Your task to perform on an android device: turn on notifications settings in the gmail app Image 0: 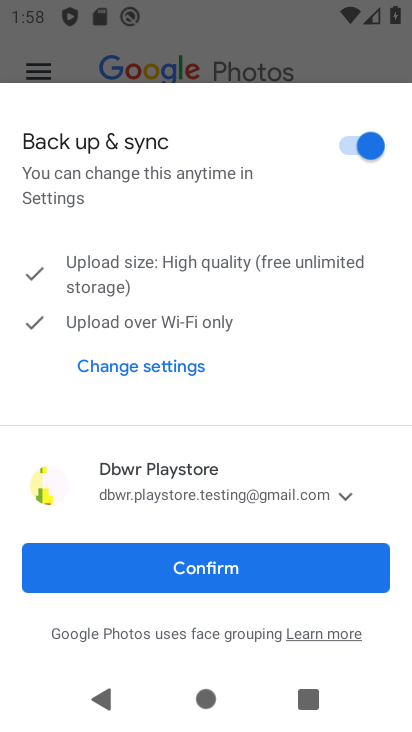
Step 0: press back button
Your task to perform on an android device: turn on notifications settings in the gmail app Image 1: 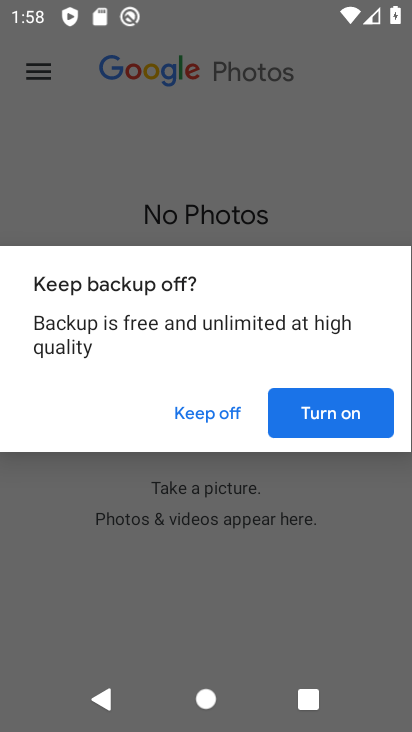
Step 1: press back button
Your task to perform on an android device: turn on notifications settings in the gmail app Image 2: 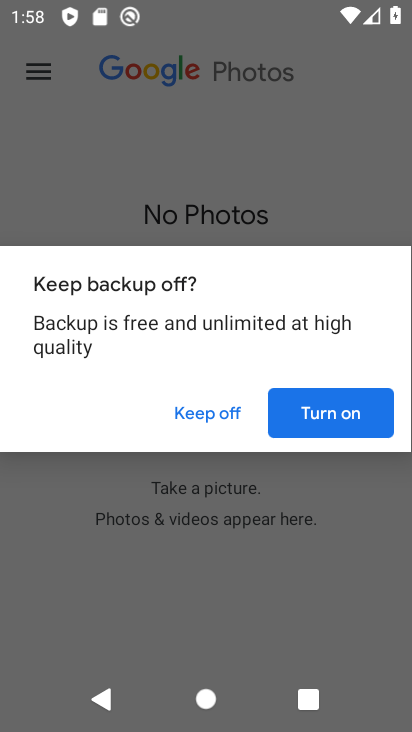
Step 2: click (226, 415)
Your task to perform on an android device: turn on notifications settings in the gmail app Image 3: 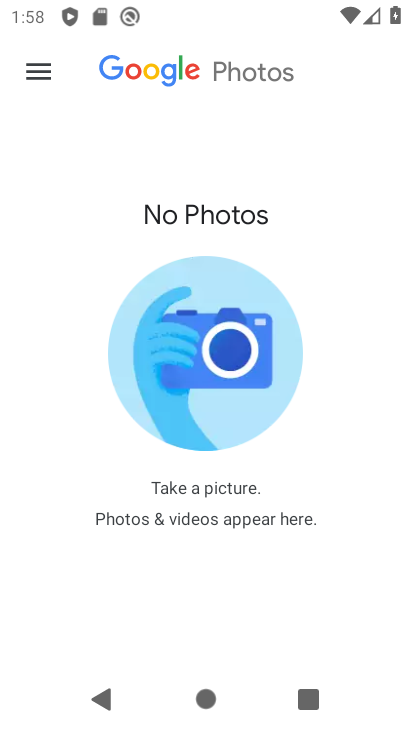
Step 3: press back button
Your task to perform on an android device: turn on notifications settings in the gmail app Image 4: 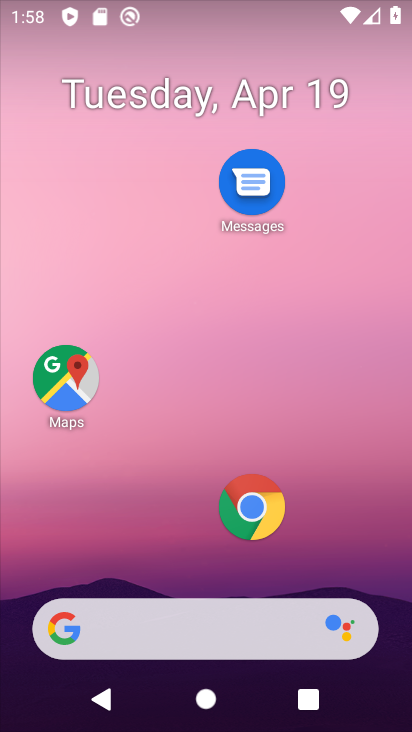
Step 4: drag from (109, 412) to (224, 57)
Your task to perform on an android device: turn on notifications settings in the gmail app Image 5: 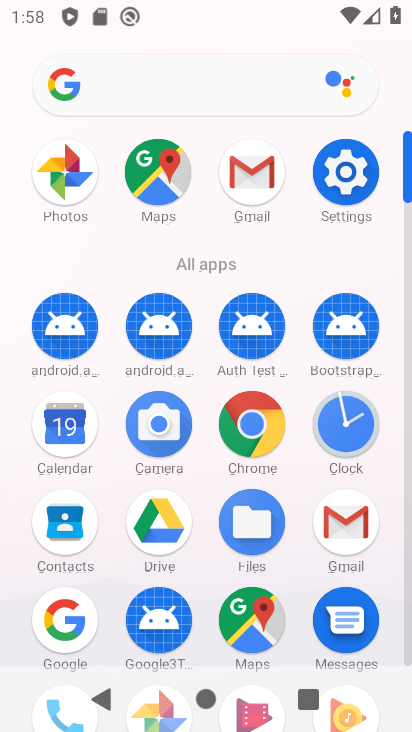
Step 5: click (350, 530)
Your task to perform on an android device: turn on notifications settings in the gmail app Image 6: 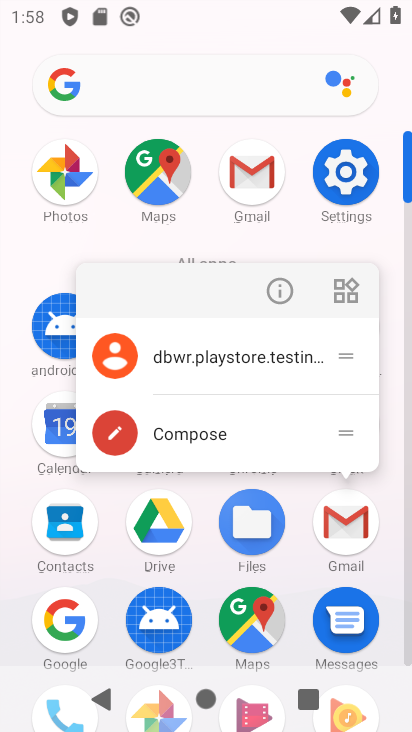
Step 6: click (352, 528)
Your task to perform on an android device: turn on notifications settings in the gmail app Image 7: 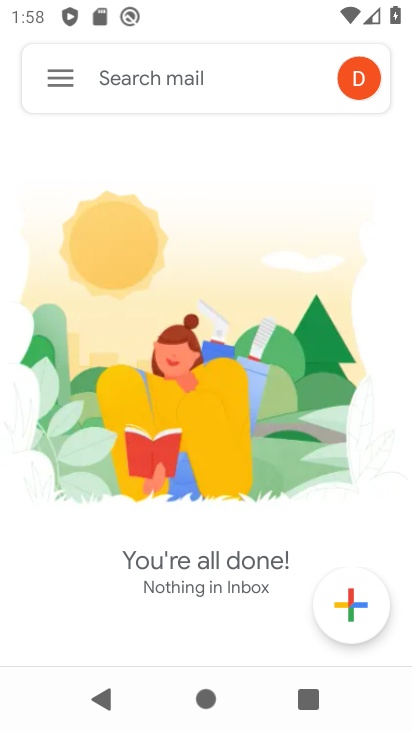
Step 7: click (58, 79)
Your task to perform on an android device: turn on notifications settings in the gmail app Image 8: 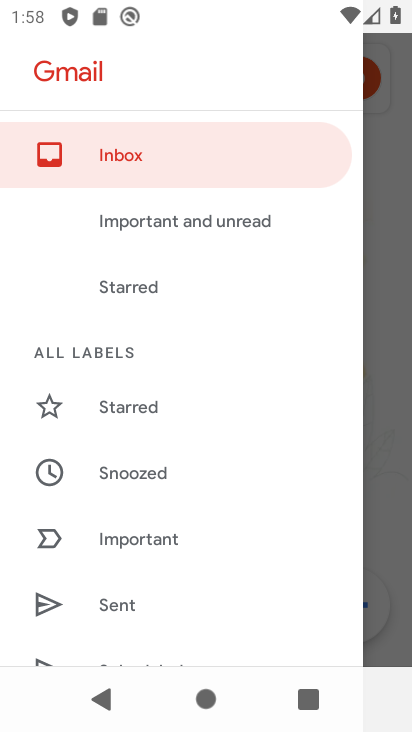
Step 8: drag from (164, 545) to (290, 158)
Your task to perform on an android device: turn on notifications settings in the gmail app Image 9: 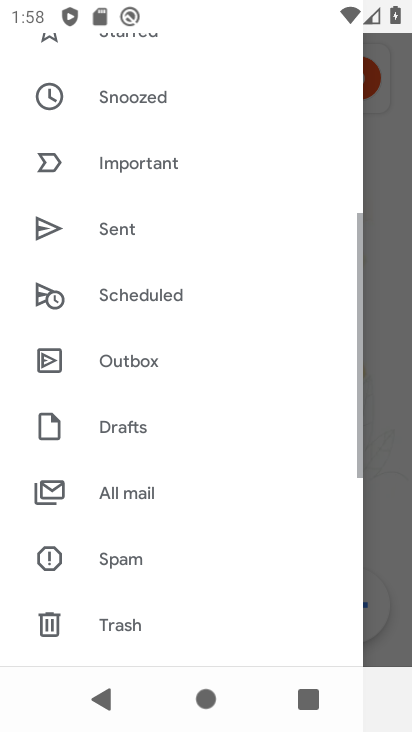
Step 9: drag from (207, 592) to (279, 189)
Your task to perform on an android device: turn on notifications settings in the gmail app Image 10: 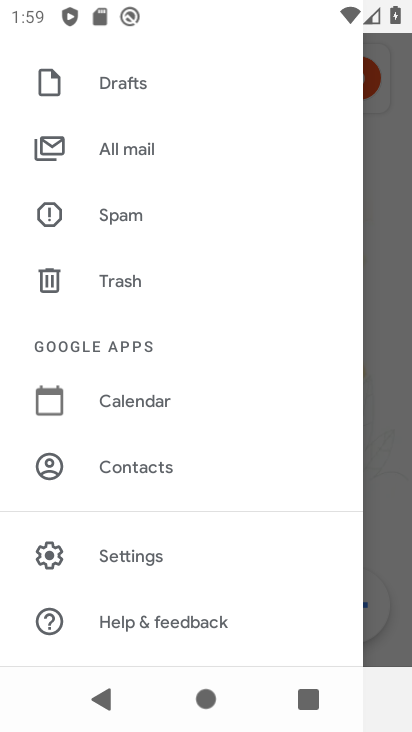
Step 10: click (161, 560)
Your task to perform on an android device: turn on notifications settings in the gmail app Image 11: 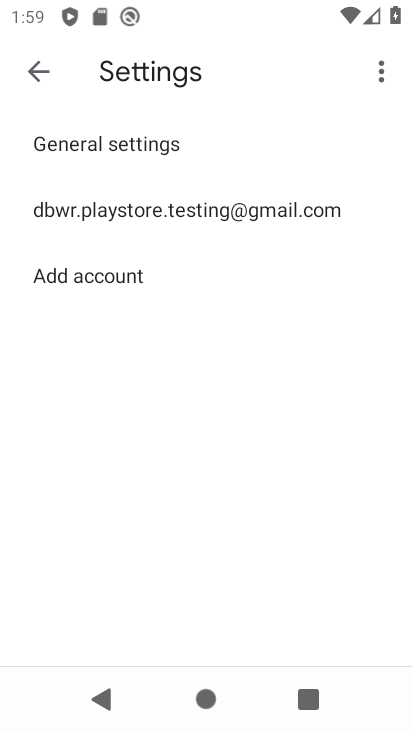
Step 11: click (266, 221)
Your task to perform on an android device: turn on notifications settings in the gmail app Image 12: 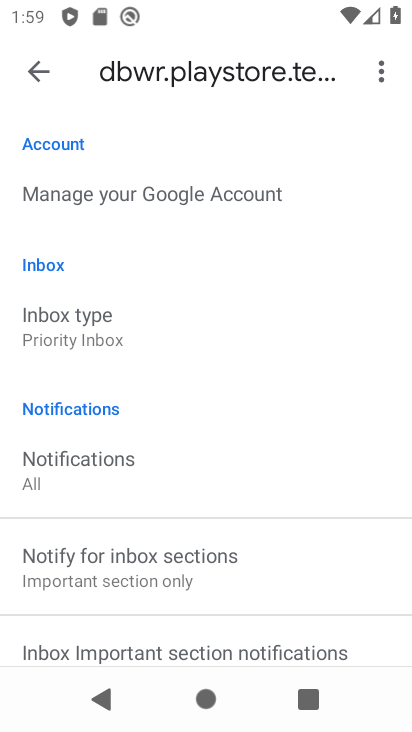
Step 12: drag from (179, 553) to (277, 201)
Your task to perform on an android device: turn on notifications settings in the gmail app Image 13: 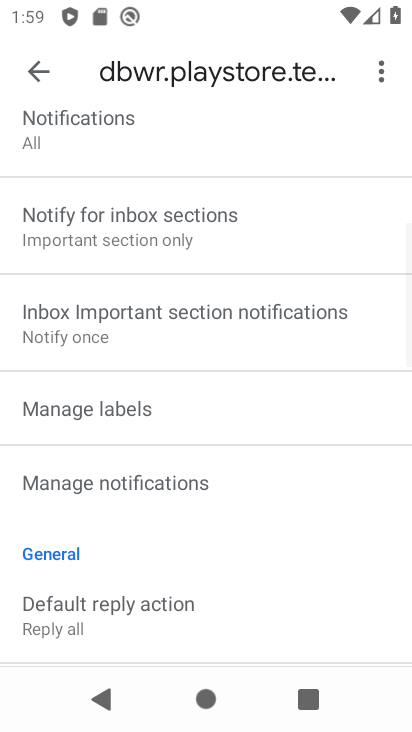
Step 13: click (167, 486)
Your task to perform on an android device: turn on notifications settings in the gmail app Image 14: 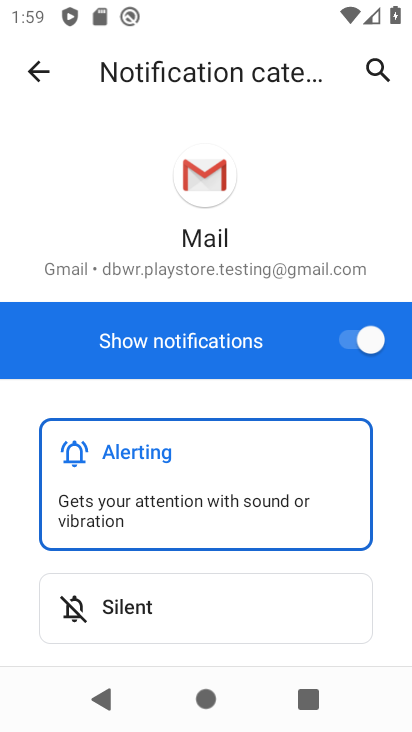
Step 14: task complete